Your task to perform on an android device: Search for the best selling phone on AliExpress Image 0: 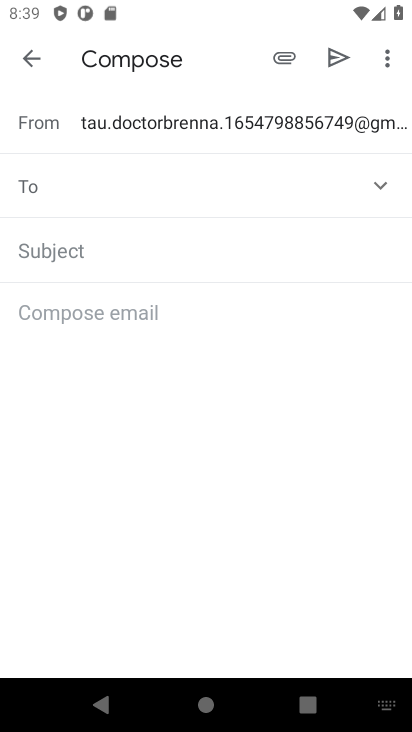
Step 0: press home button
Your task to perform on an android device: Search for the best selling phone on AliExpress Image 1: 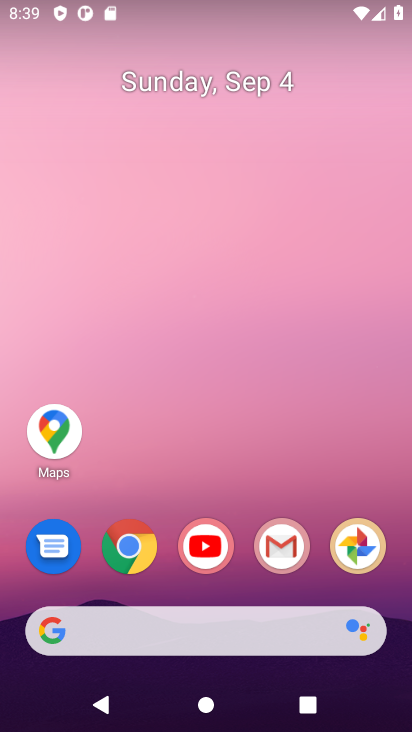
Step 1: click (143, 546)
Your task to perform on an android device: Search for the best selling phone on AliExpress Image 2: 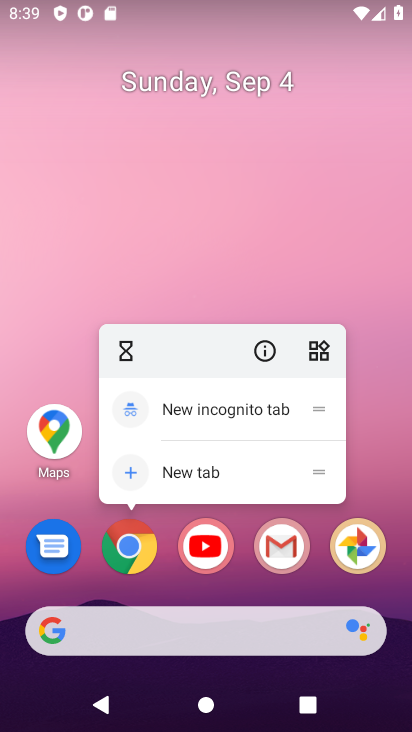
Step 2: click (133, 553)
Your task to perform on an android device: Search for the best selling phone on AliExpress Image 3: 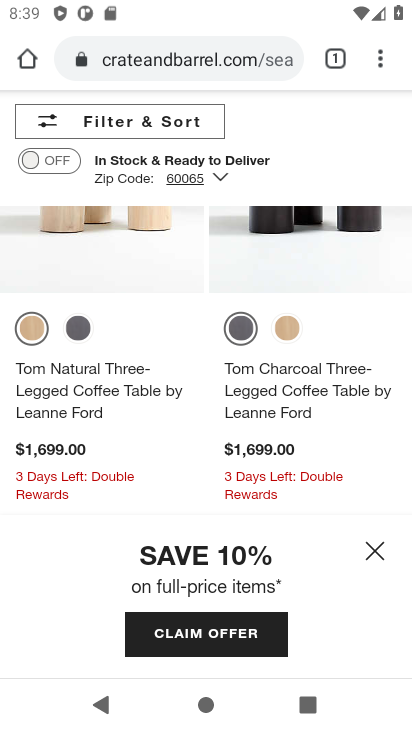
Step 3: click (219, 61)
Your task to perform on an android device: Search for the best selling phone on AliExpress Image 4: 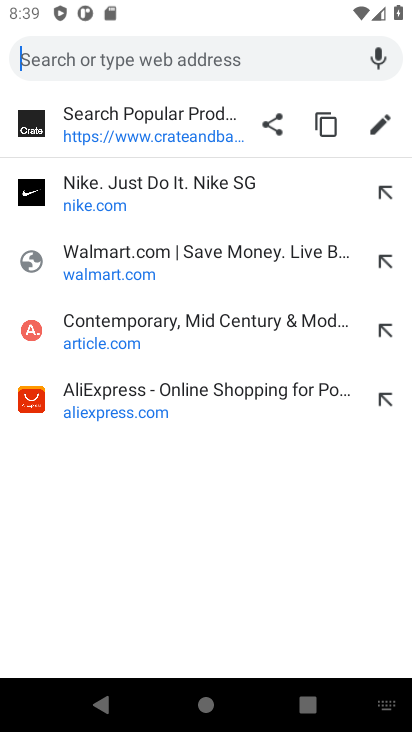
Step 4: type "aliexpress"
Your task to perform on an android device: Search for the best selling phone on AliExpress Image 5: 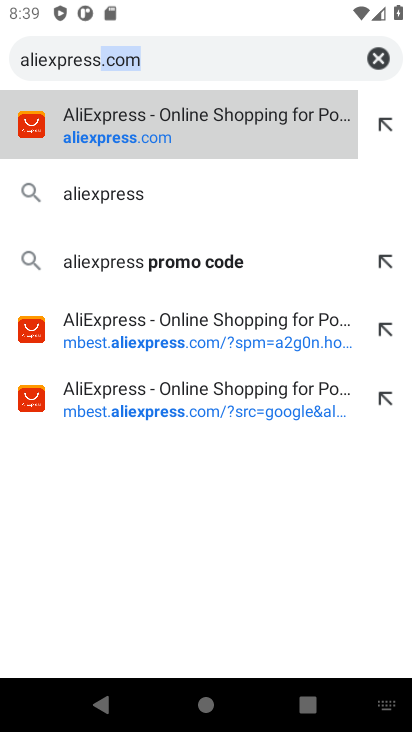
Step 5: click (101, 132)
Your task to perform on an android device: Search for the best selling phone on AliExpress Image 6: 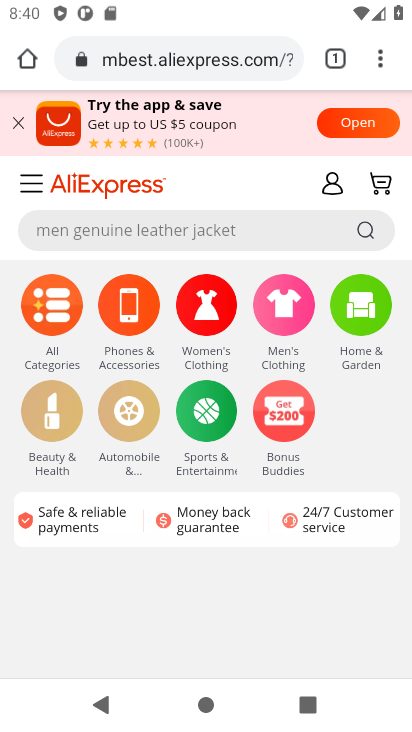
Step 6: click (156, 165)
Your task to perform on an android device: Search for the best selling phone on AliExpress Image 7: 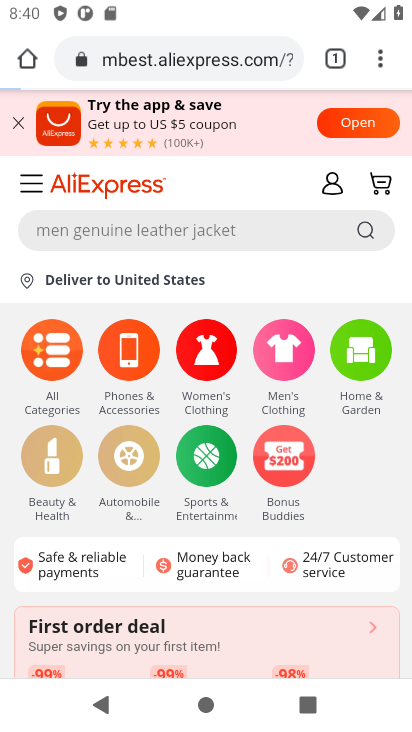
Step 7: click (158, 247)
Your task to perform on an android device: Search for the best selling phone on AliExpress Image 8: 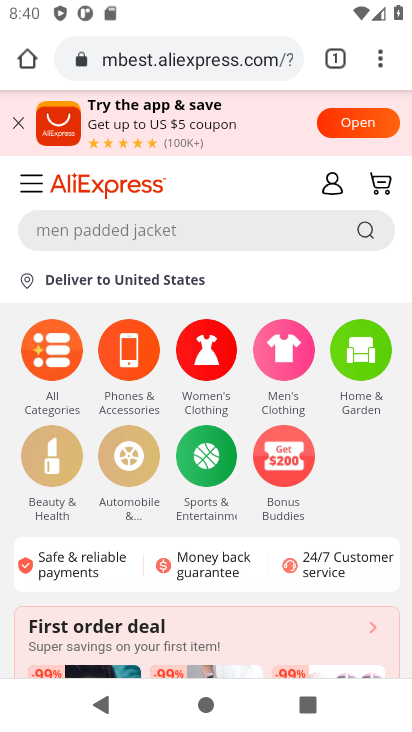
Step 8: click (182, 227)
Your task to perform on an android device: Search for the best selling phone on AliExpress Image 9: 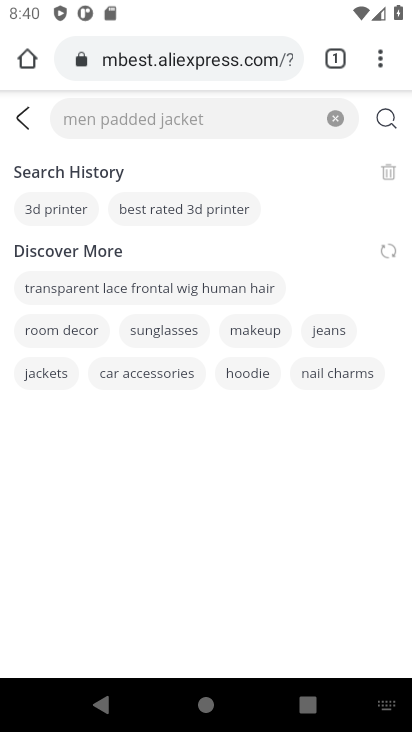
Step 9: type "best selling phone"
Your task to perform on an android device: Search for the best selling phone on AliExpress Image 10: 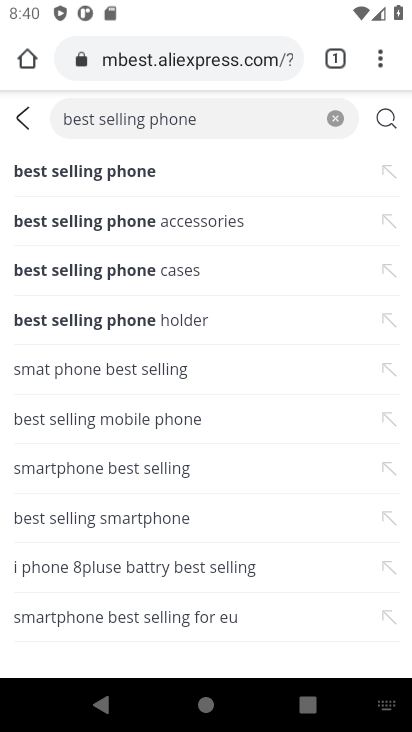
Step 10: click (81, 179)
Your task to perform on an android device: Search for the best selling phone on AliExpress Image 11: 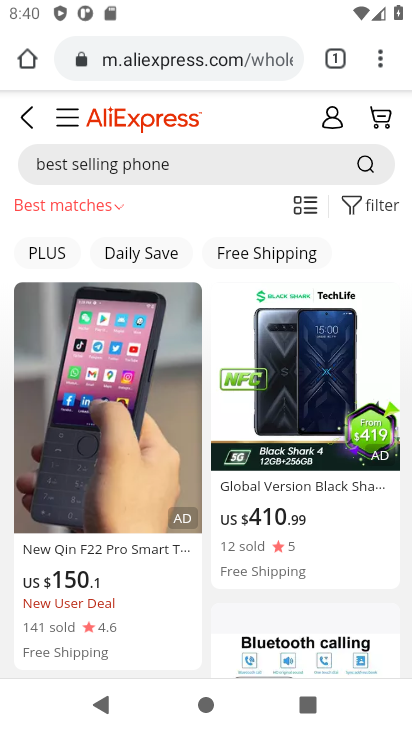
Step 11: task complete